Your task to perform on an android device: Go to eBay Image 0: 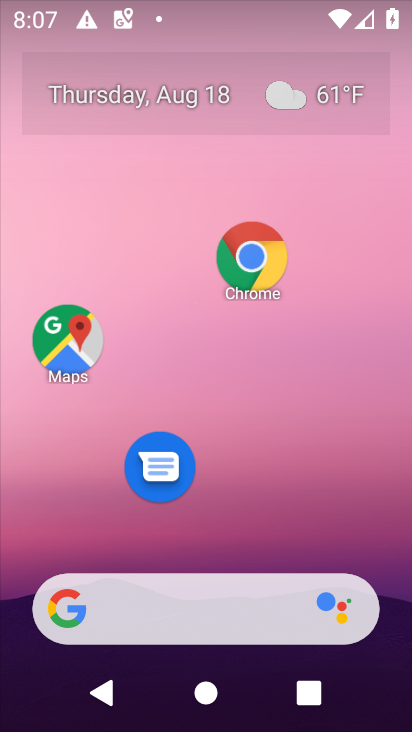
Step 0: task complete